Your task to perform on an android device: open a new tab in the chrome app Image 0: 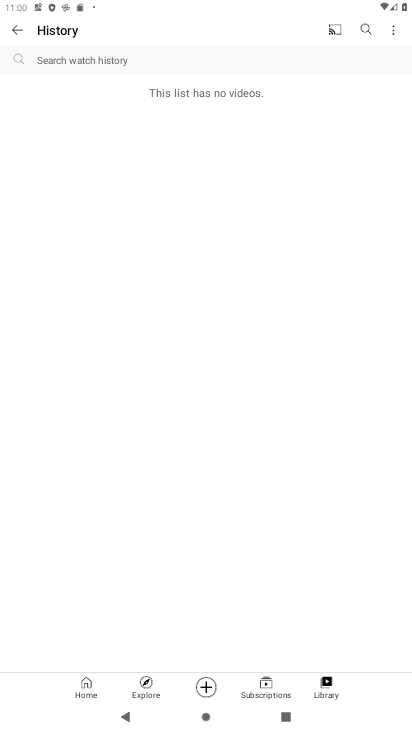
Step 0: press home button
Your task to perform on an android device: open a new tab in the chrome app Image 1: 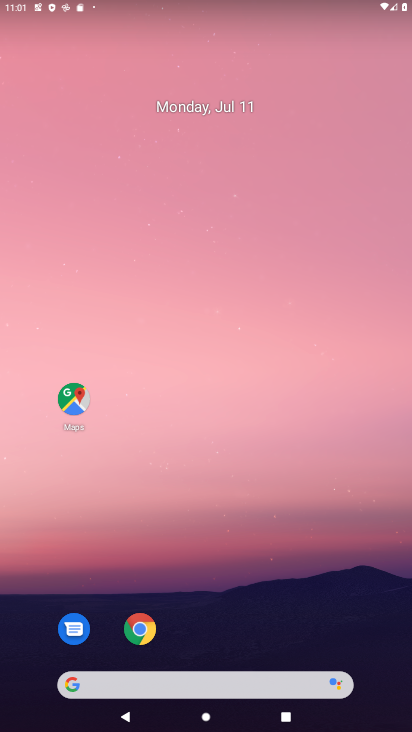
Step 1: click (145, 622)
Your task to perform on an android device: open a new tab in the chrome app Image 2: 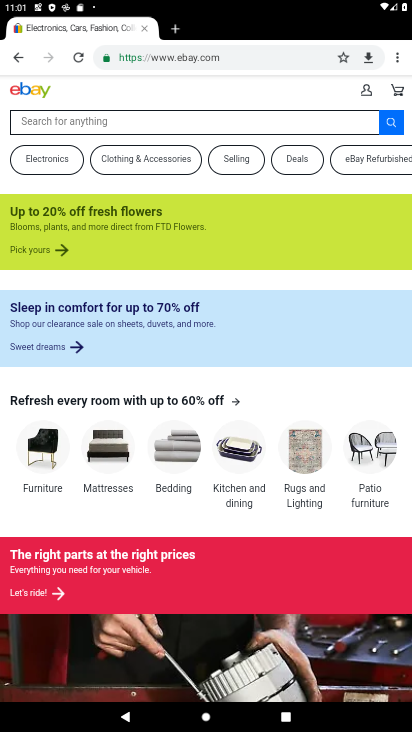
Step 2: click (388, 66)
Your task to perform on an android device: open a new tab in the chrome app Image 3: 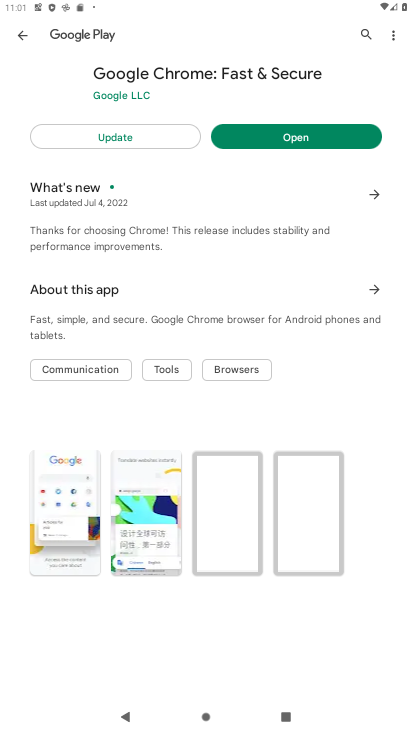
Step 3: click (396, 61)
Your task to perform on an android device: open a new tab in the chrome app Image 4: 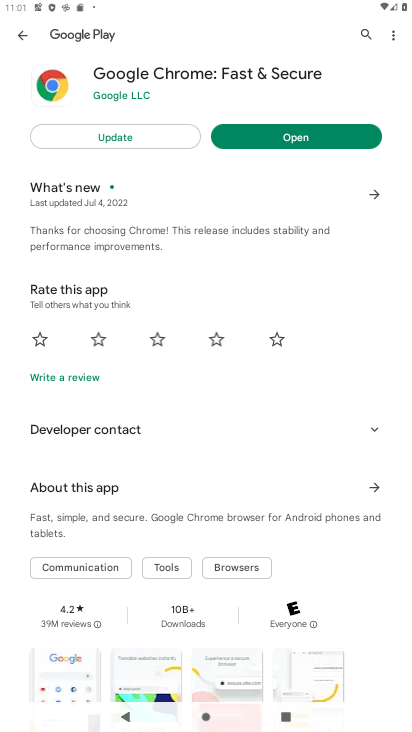
Step 4: click (389, 33)
Your task to perform on an android device: open a new tab in the chrome app Image 5: 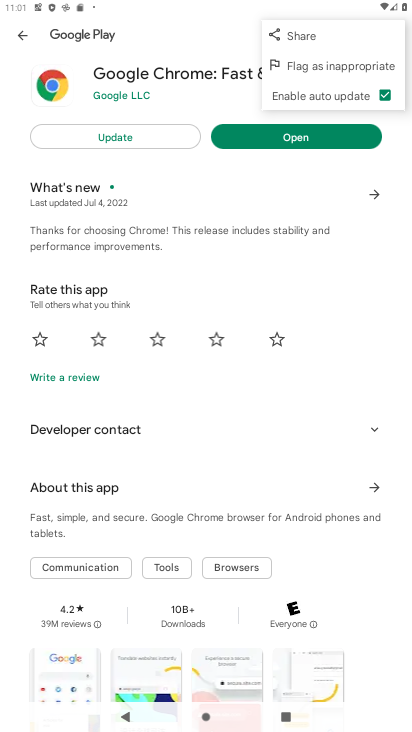
Step 5: click (24, 33)
Your task to perform on an android device: open a new tab in the chrome app Image 6: 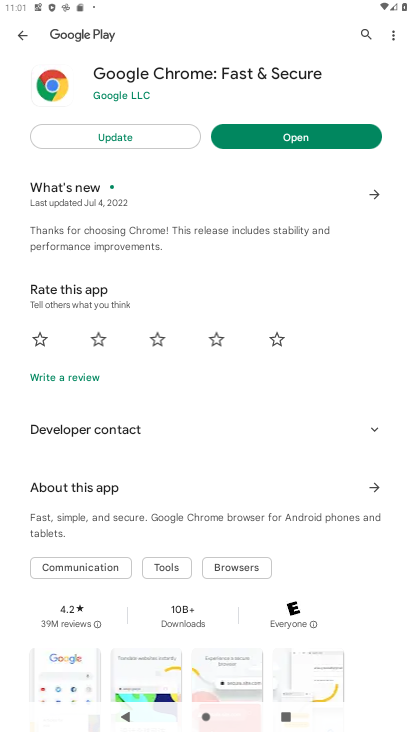
Step 6: click (24, 33)
Your task to perform on an android device: open a new tab in the chrome app Image 7: 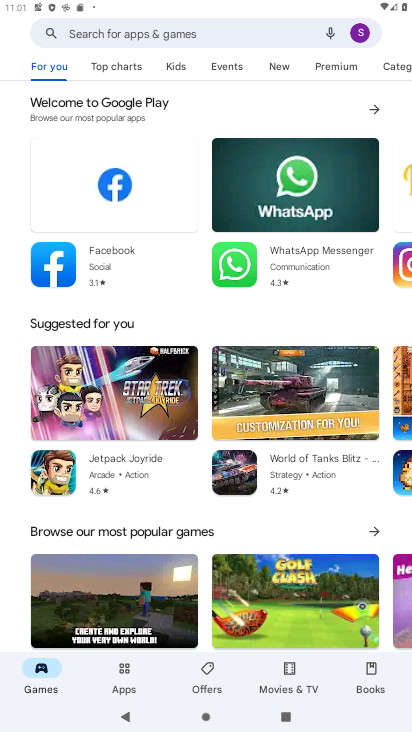
Step 7: press back button
Your task to perform on an android device: open a new tab in the chrome app Image 8: 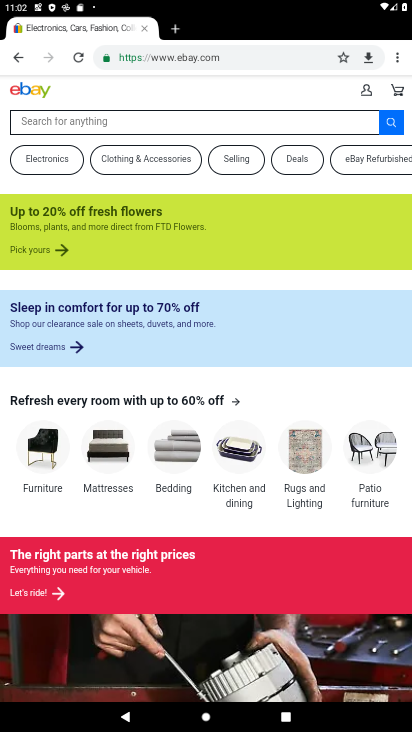
Step 8: click (388, 65)
Your task to perform on an android device: open a new tab in the chrome app Image 9: 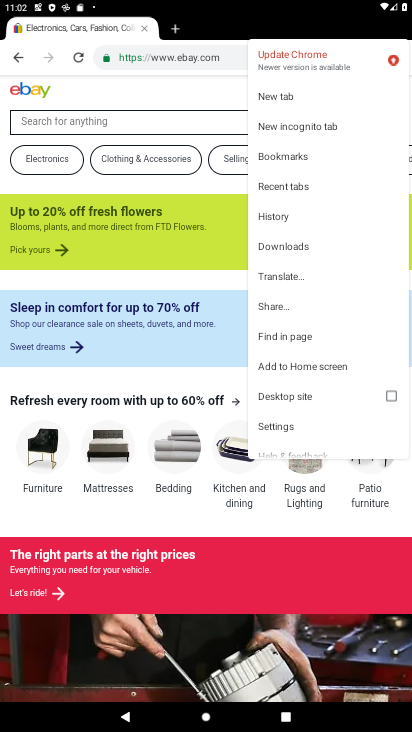
Step 9: click (302, 90)
Your task to perform on an android device: open a new tab in the chrome app Image 10: 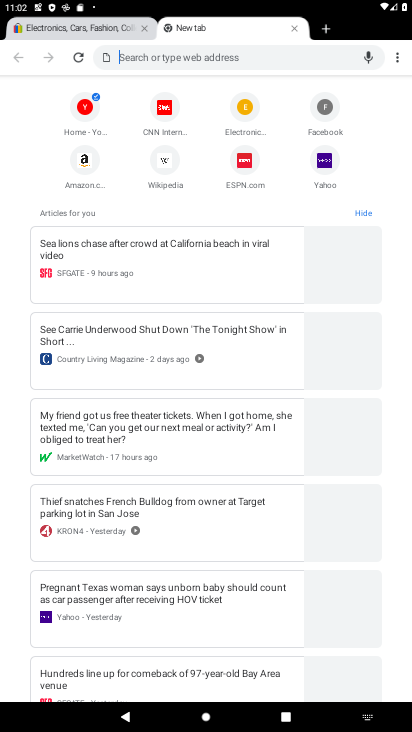
Step 10: task complete